Your task to perform on an android device: turn on the 24-hour format for clock Image 0: 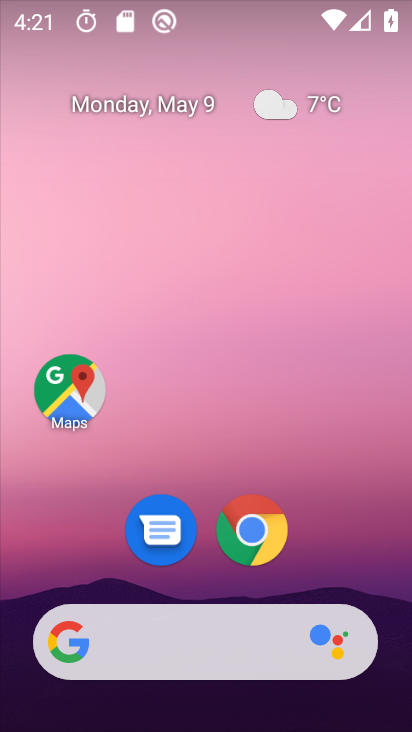
Step 0: drag from (190, 498) to (295, 137)
Your task to perform on an android device: turn on the 24-hour format for clock Image 1: 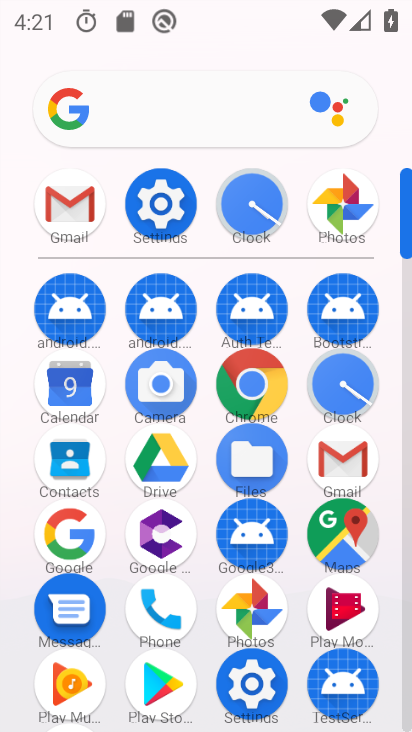
Step 1: click (342, 390)
Your task to perform on an android device: turn on the 24-hour format for clock Image 2: 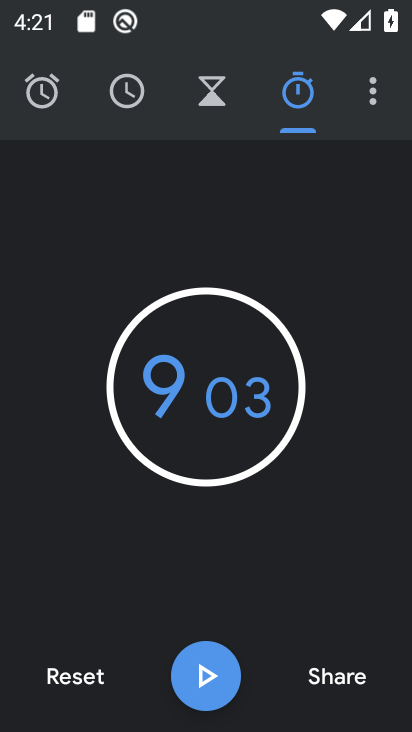
Step 2: click (360, 93)
Your task to perform on an android device: turn on the 24-hour format for clock Image 3: 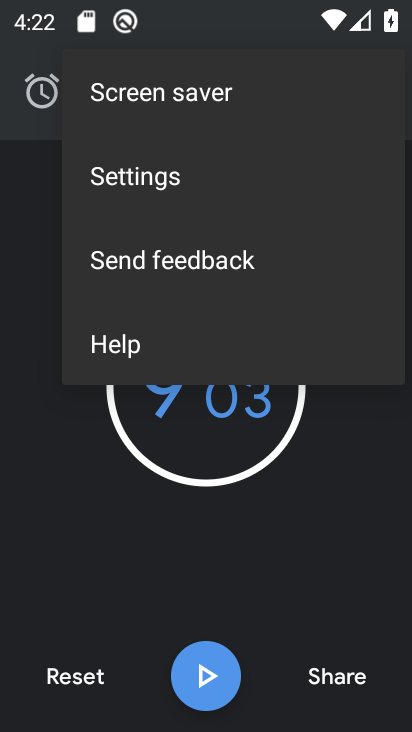
Step 3: click (70, 165)
Your task to perform on an android device: turn on the 24-hour format for clock Image 4: 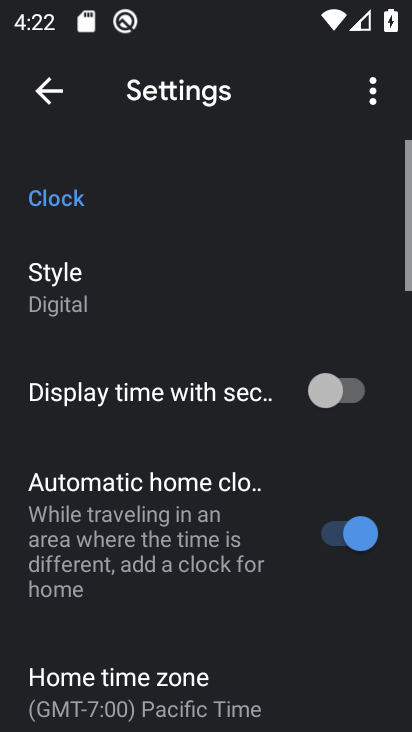
Step 4: drag from (127, 615) to (271, 117)
Your task to perform on an android device: turn on the 24-hour format for clock Image 5: 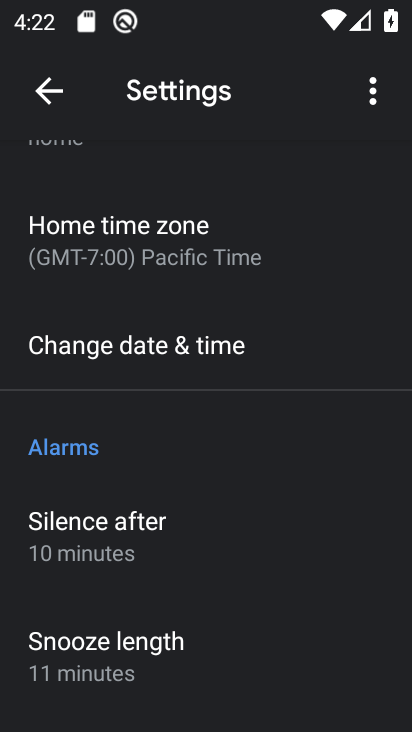
Step 5: click (175, 339)
Your task to perform on an android device: turn on the 24-hour format for clock Image 6: 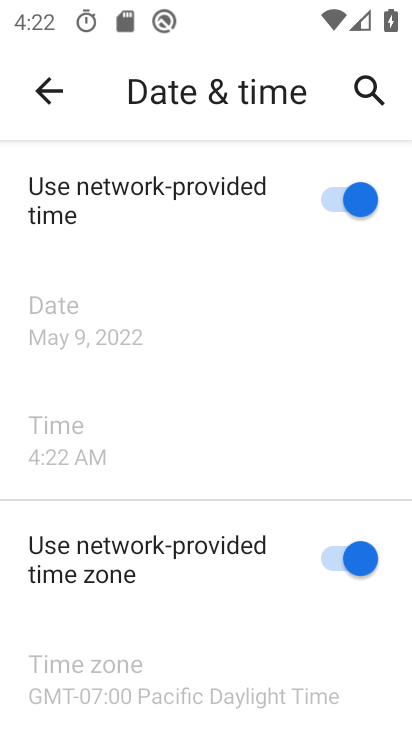
Step 6: drag from (152, 579) to (336, 98)
Your task to perform on an android device: turn on the 24-hour format for clock Image 7: 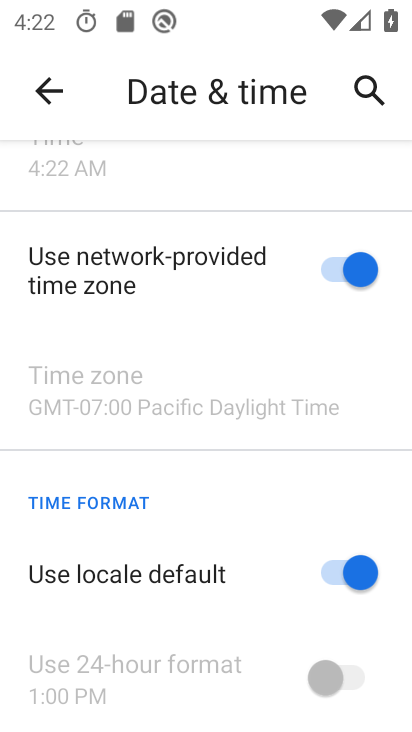
Step 7: click (343, 564)
Your task to perform on an android device: turn on the 24-hour format for clock Image 8: 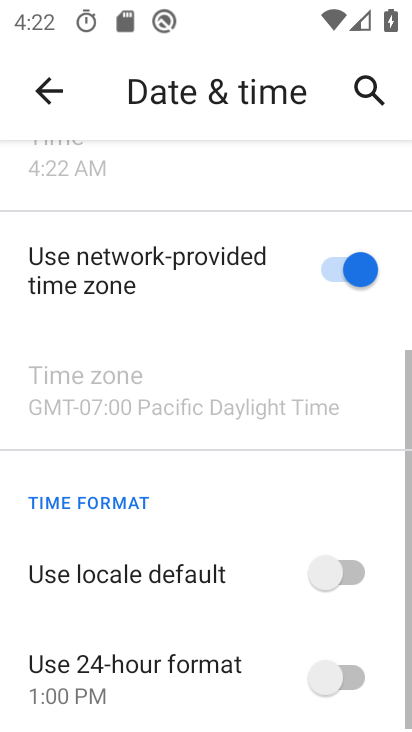
Step 8: click (346, 675)
Your task to perform on an android device: turn on the 24-hour format for clock Image 9: 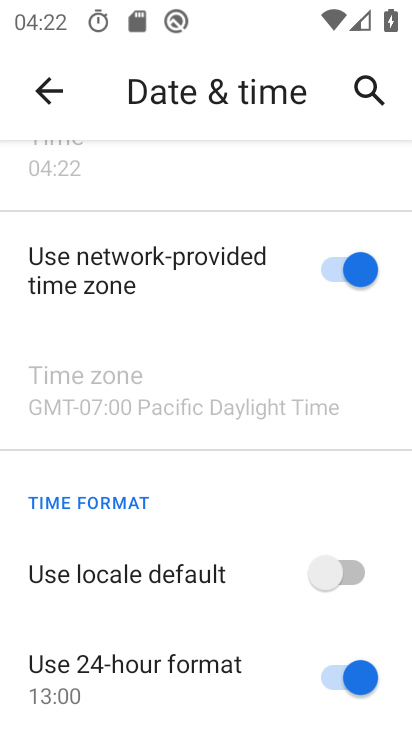
Step 9: task complete